Your task to perform on an android device: Open Youtube and go to "Your channel" Image 0: 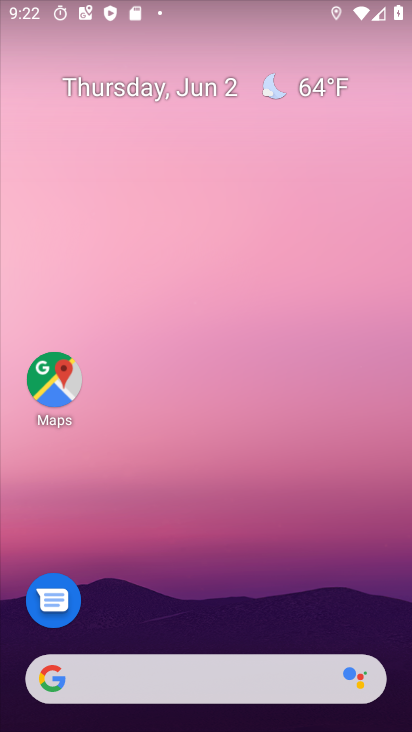
Step 0: drag from (207, 587) to (259, 26)
Your task to perform on an android device: Open Youtube and go to "Your channel" Image 1: 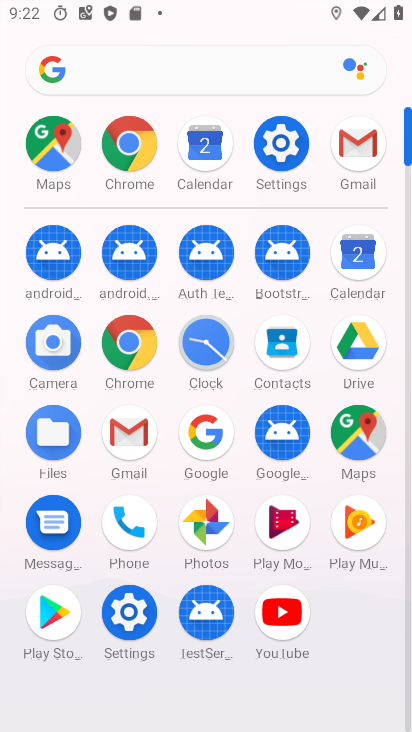
Step 1: click (277, 611)
Your task to perform on an android device: Open Youtube and go to "Your channel" Image 2: 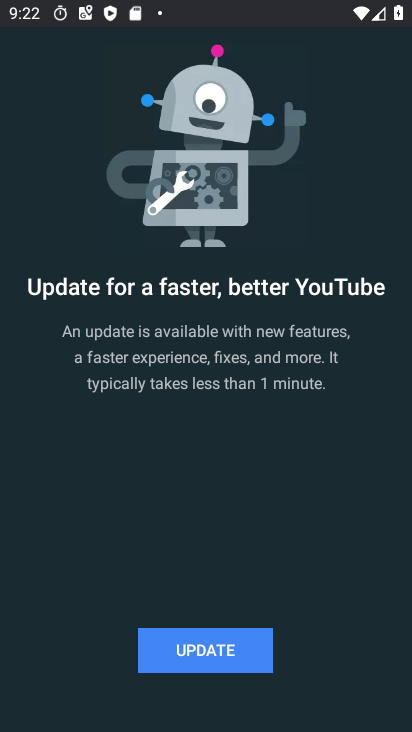
Step 2: click (204, 661)
Your task to perform on an android device: Open Youtube and go to "Your channel" Image 3: 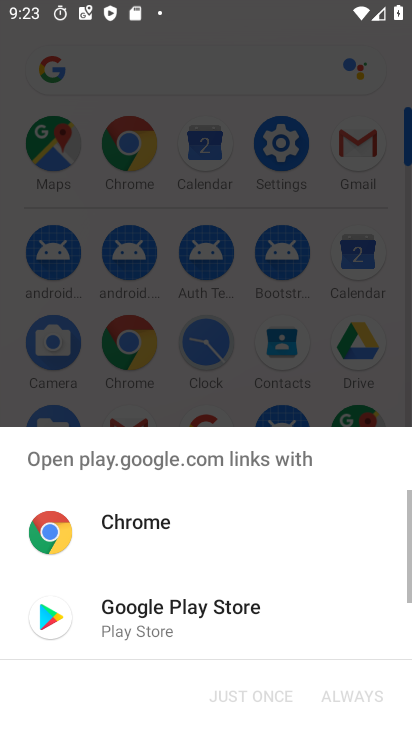
Step 3: click (199, 604)
Your task to perform on an android device: Open Youtube and go to "Your channel" Image 4: 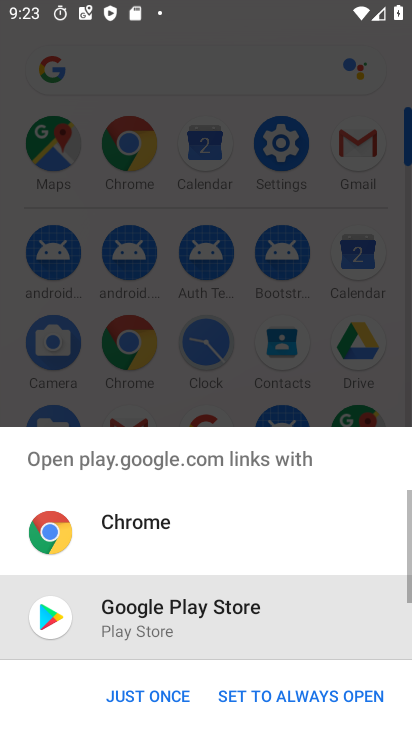
Step 4: click (243, 689)
Your task to perform on an android device: Open Youtube and go to "Your channel" Image 5: 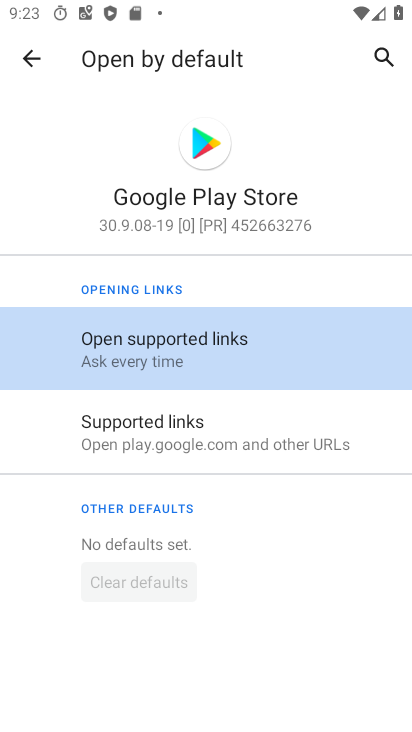
Step 5: press back button
Your task to perform on an android device: Open Youtube and go to "Your channel" Image 6: 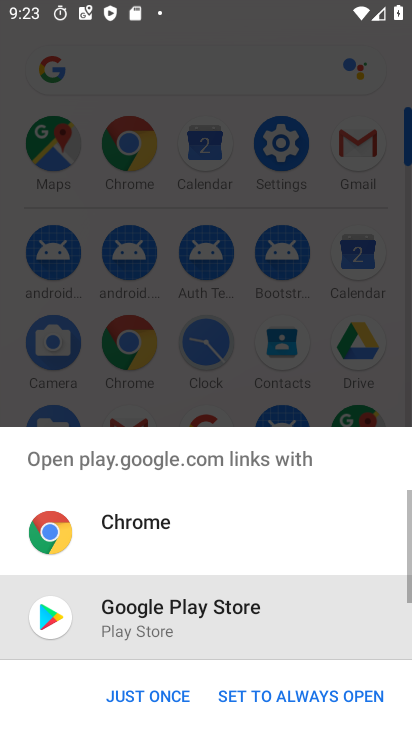
Step 6: click (166, 696)
Your task to perform on an android device: Open Youtube and go to "Your channel" Image 7: 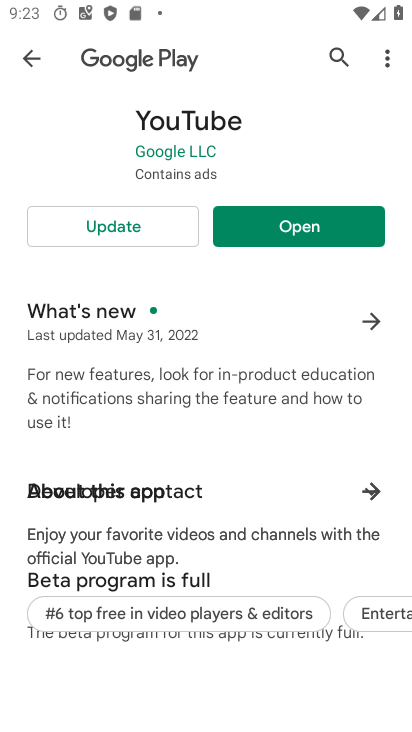
Step 7: click (107, 212)
Your task to perform on an android device: Open Youtube and go to "Your channel" Image 8: 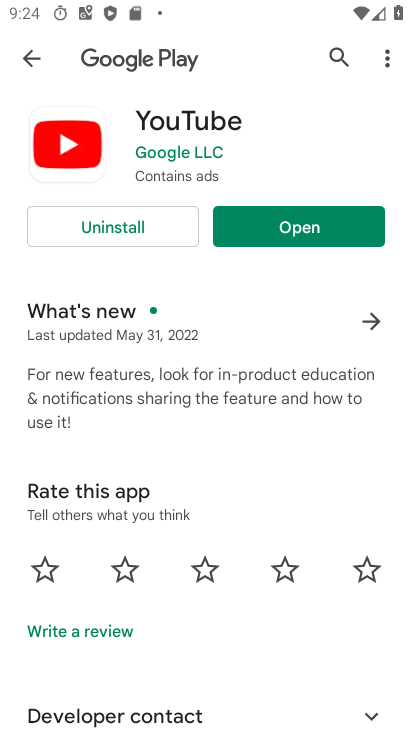
Step 8: click (308, 224)
Your task to perform on an android device: Open Youtube and go to "Your channel" Image 9: 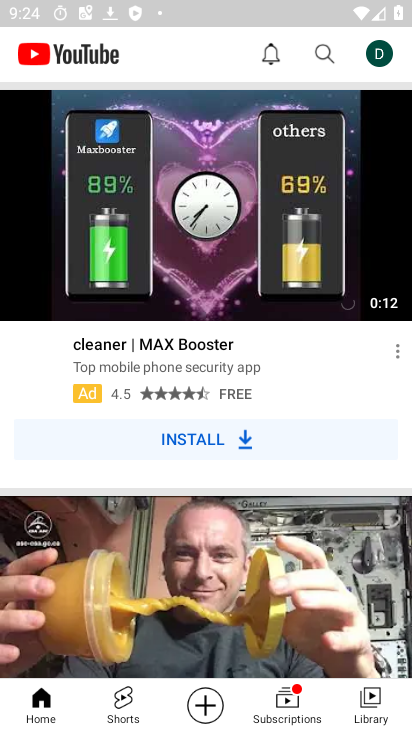
Step 9: click (378, 56)
Your task to perform on an android device: Open Youtube and go to "Your channel" Image 10: 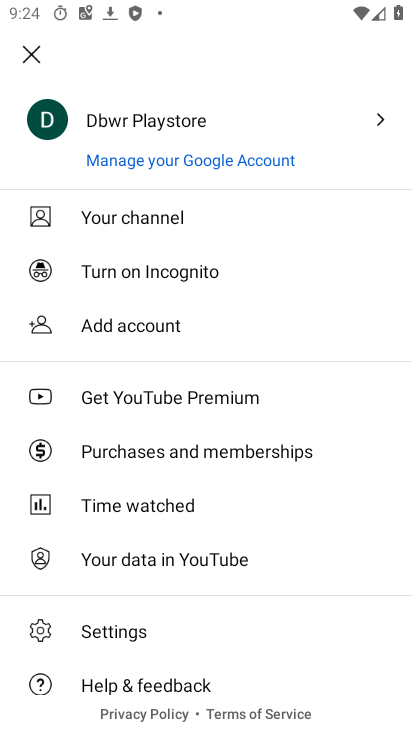
Step 10: click (164, 216)
Your task to perform on an android device: Open Youtube and go to "Your channel" Image 11: 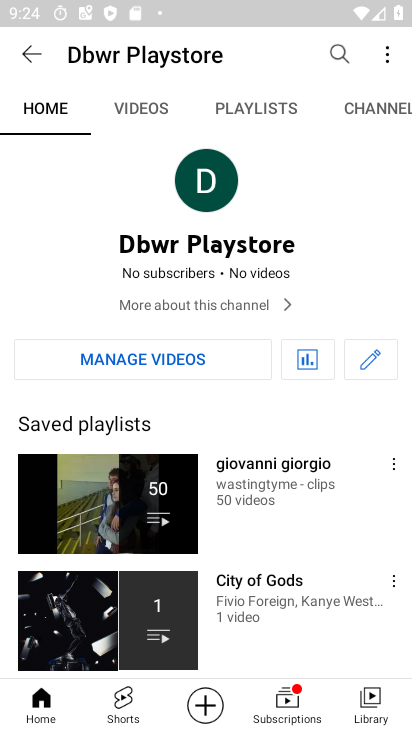
Step 11: task complete